Your task to perform on an android device: Go to settings Image 0: 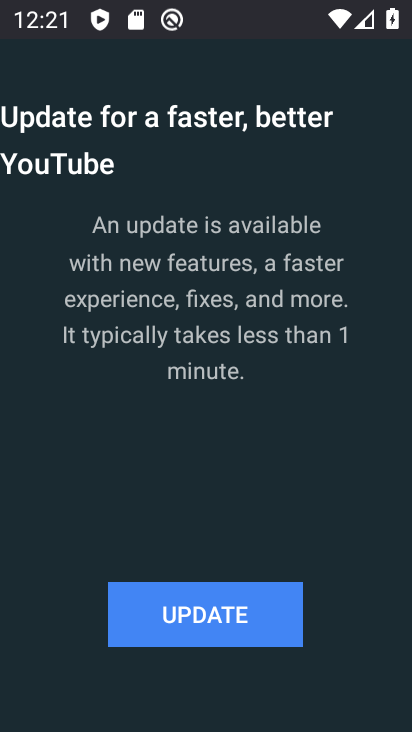
Step 0: press home button
Your task to perform on an android device: Go to settings Image 1: 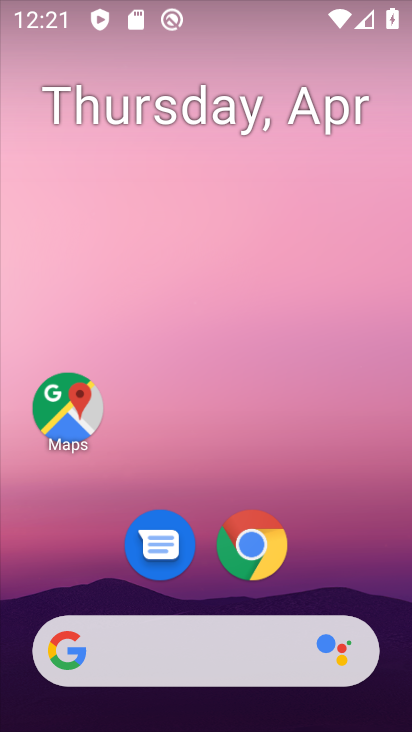
Step 1: drag from (326, 548) to (327, 212)
Your task to perform on an android device: Go to settings Image 2: 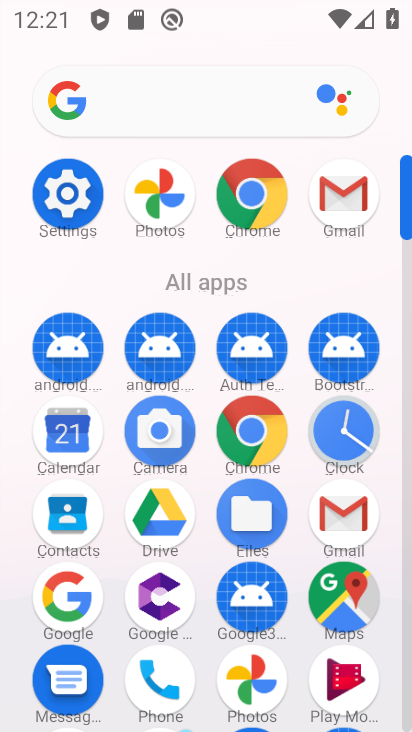
Step 2: drag from (203, 616) to (266, 225)
Your task to perform on an android device: Go to settings Image 3: 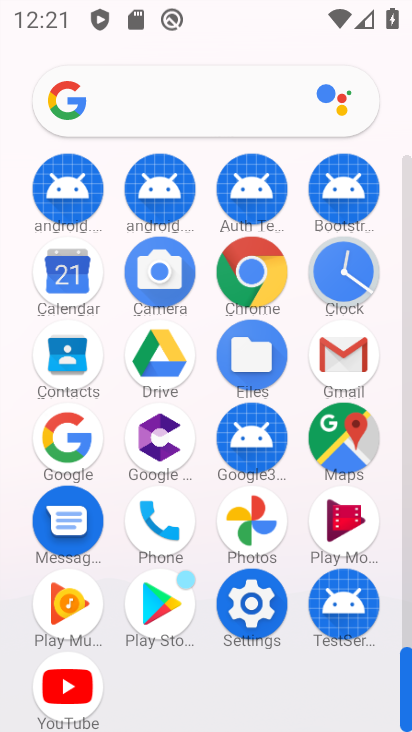
Step 3: click (256, 615)
Your task to perform on an android device: Go to settings Image 4: 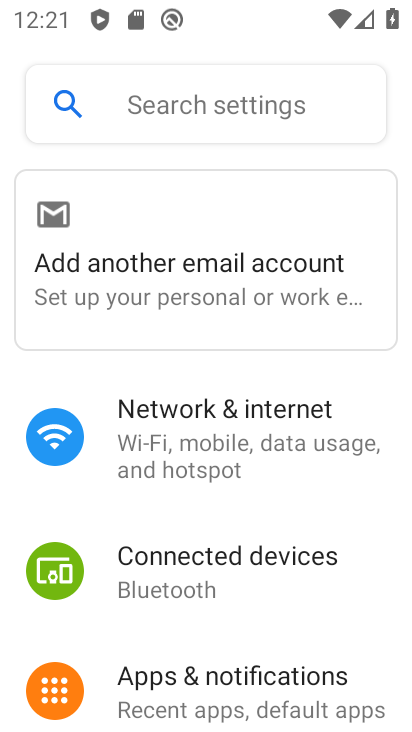
Step 4: task complete